Your task to perform on an android device: turn on improve location accuracy Image 0: 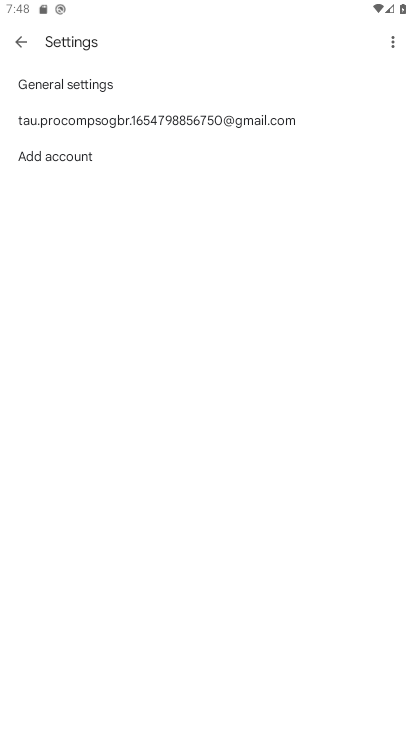
Step 0: press home button
Your task to perform on an android device: turn on improve location accuracy Image 1: 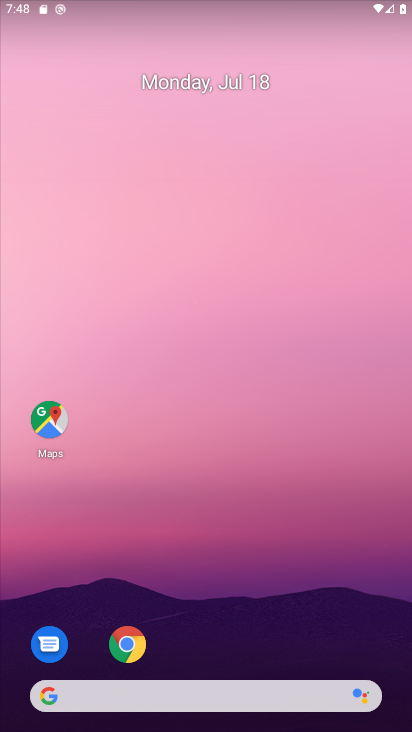
Step 1: drag from (242, 658) to (236, 357)
Your task to perform on an android device: turn on improve location accuracy Image 2: 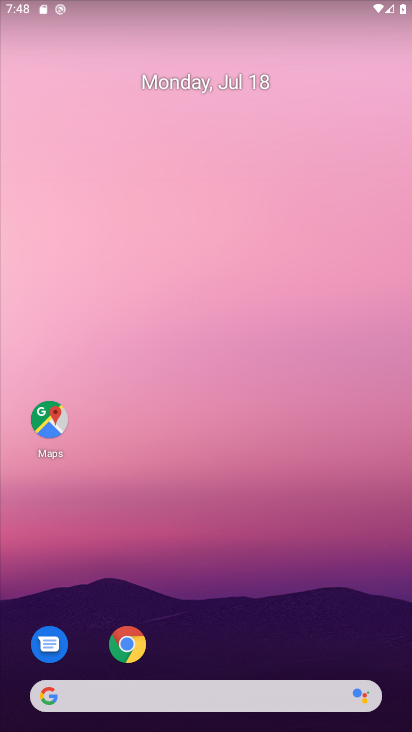
Step 2: drag from (240, 656) to (251, 131)
Your task to perform on an android device: turn on improve location accuracy Image 3: 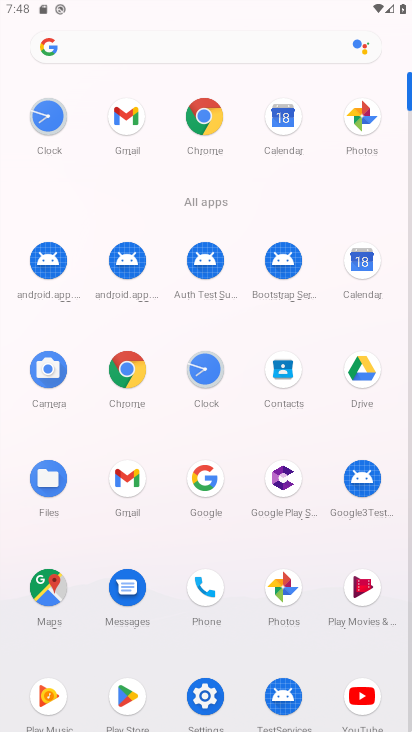
Step 3: click (206, 689)
Your task to perform on an android device: turn on improve location accuracy Image 4: 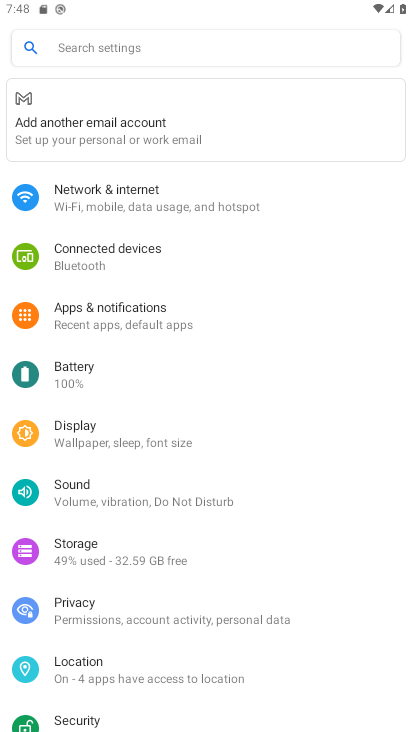
Step 4: drag from (189, 614) to (168, 273)
Your task to perform on an android device: turn on improve location accuracy Image 5: 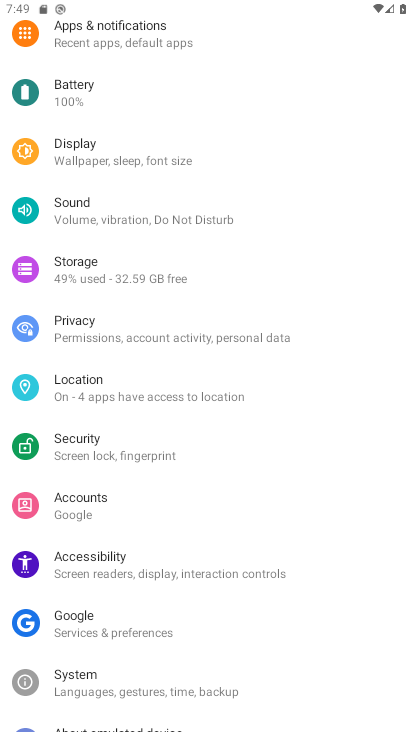
Step 5: click (134, 374)
Your task to perform on an android device: turn on improve location accuracy Image 6: 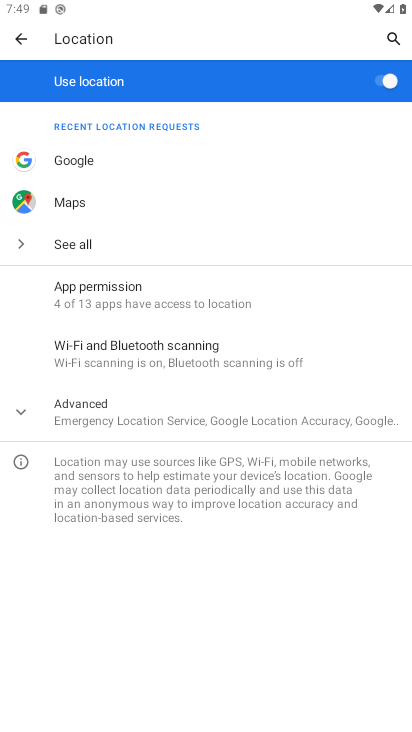
Step 6: click (151, 408)
Your task to perform on an android device: turn on improve location accuracy Image 7: 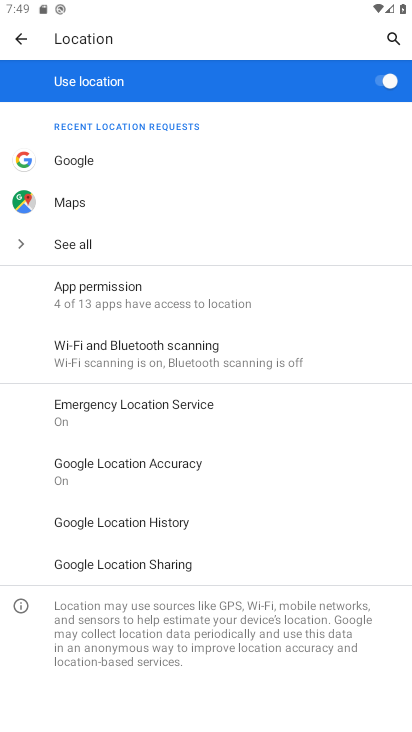
Step 7: click (159, 463)
Your task to perform on an android device: turn on improve location accuracy Image 8: 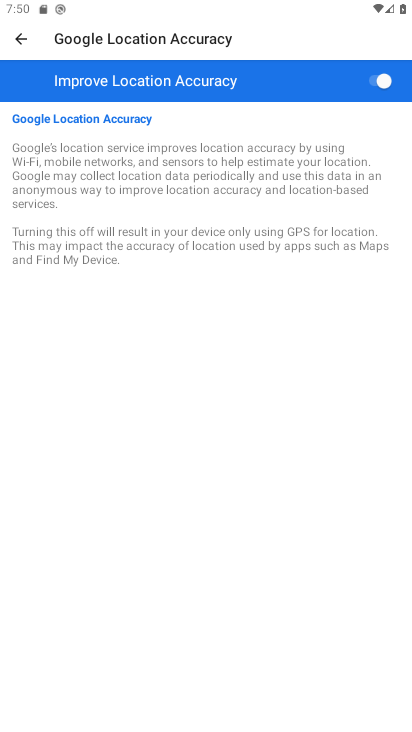
Step 8: task complete